Your task to perform on an android device: turn off picture-in-picture Image 0: 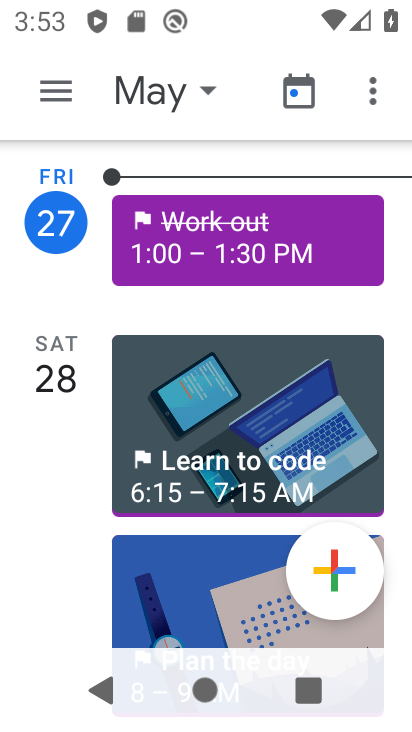
Step 0: press back button
Your task to perform on an android device: turn off picture-in-picture Image 1: 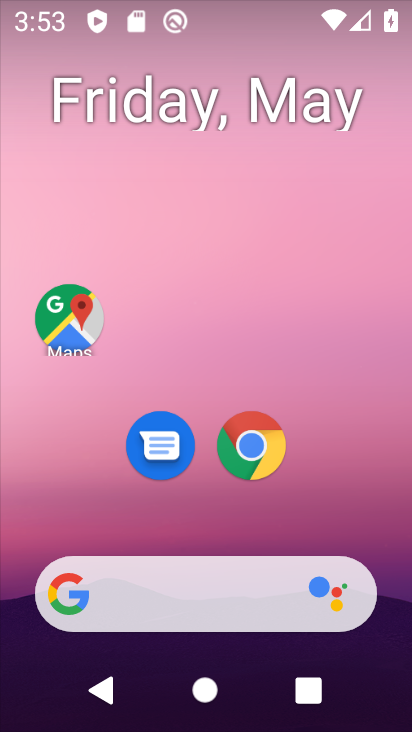
Step 1: drag from (204, 506) to (253, 52)
Your task to perform on an android device: turn off picture-in-picture Image 2: 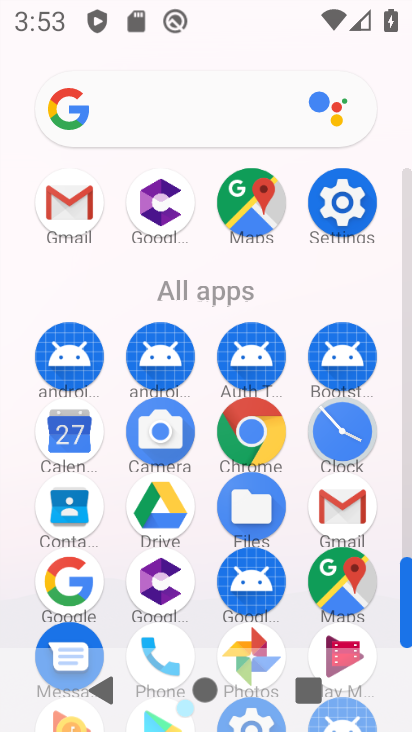
Step 2: click (351, 202)
Your task to perform on an android device: turn off picture-in-picture Image 3: 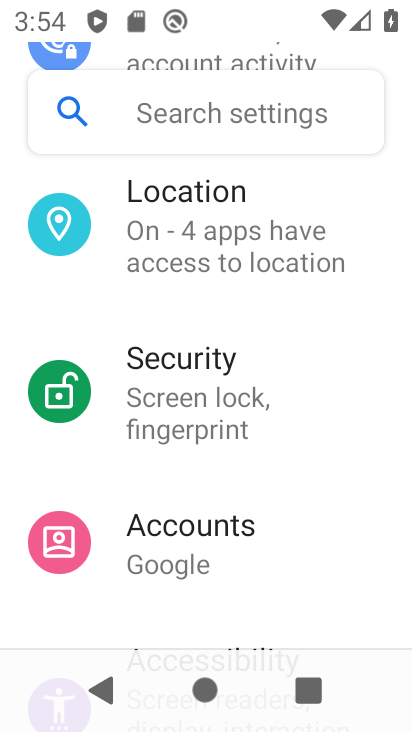
Step 3: drag from (202, 145) to (238, 590)
Your task to perform on an android device: turn off picture-in-picture Image 4: 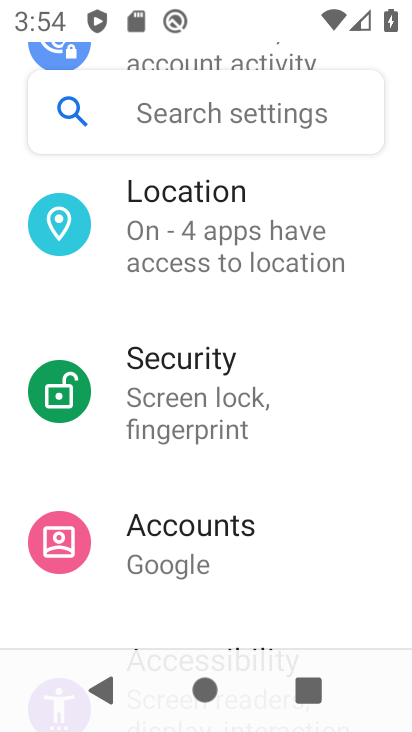
Step 4: drag from (180, 522) to (261, 73)
Your task to perform on an android device: turn off picture-in-picture Image 5: 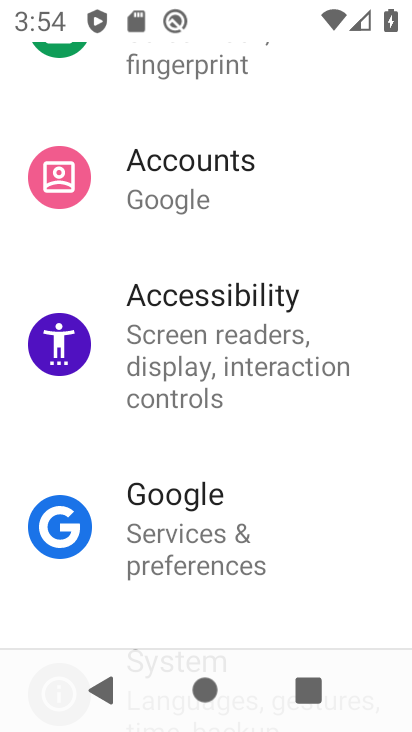
Step 5: drag from (234, 407) to (197, 655)
Your task to perform on an android device: turn off picture-in-picture Image 6: 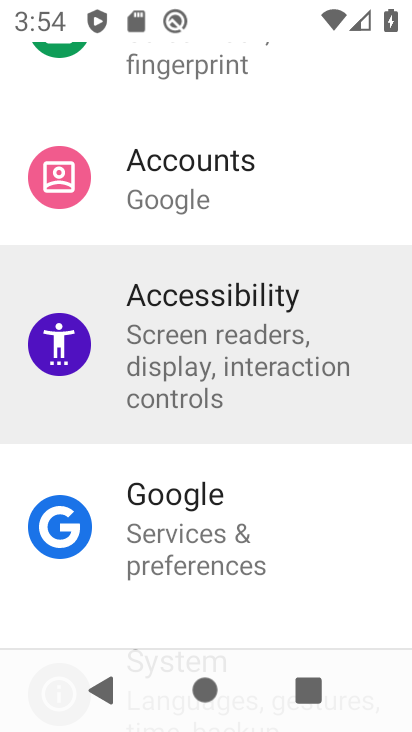
Step 6: drag from (214, 323) to (170, 620)
Your task to perform on an android device: turn off picture-in-picture Image 7: 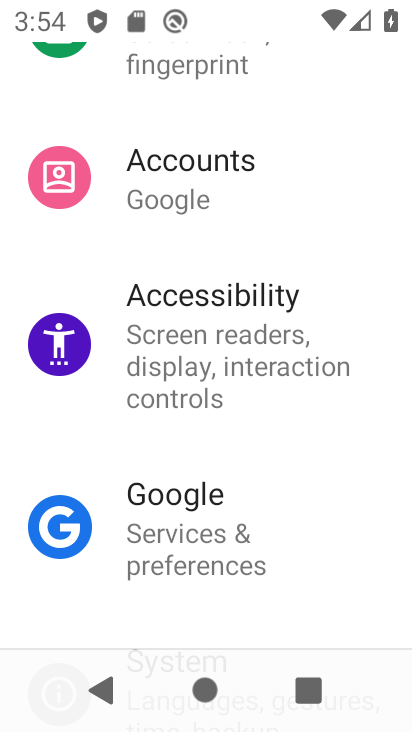
Step 7: click (159, 553)
Your task to perform on an android device: turn off picture-in-picture Image 8: 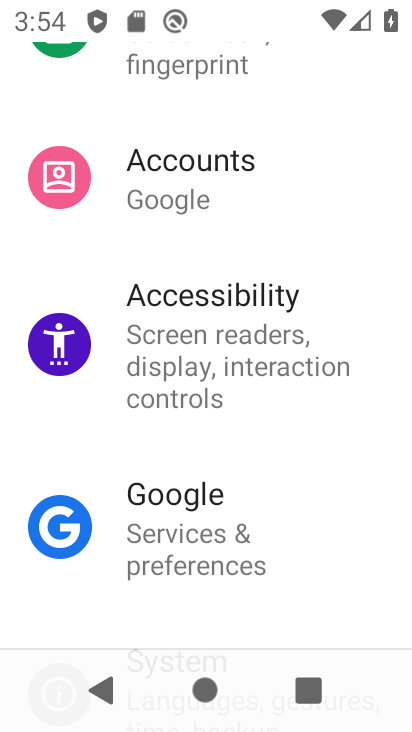
Step 8: drag from (243, 188) to (186, 594)
Your task to perform on an android device: turn off picture-in-picture Image 9: 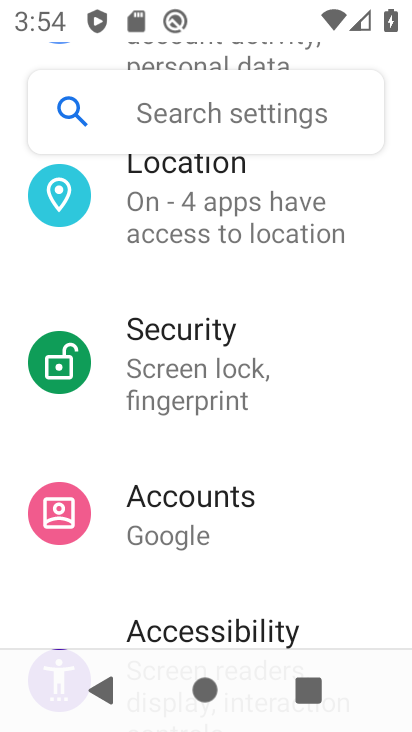
Step 9: drag from (220, 280) to (184, 668)
Your task to perform on an android device: turn off picture-in-picture Image 10: 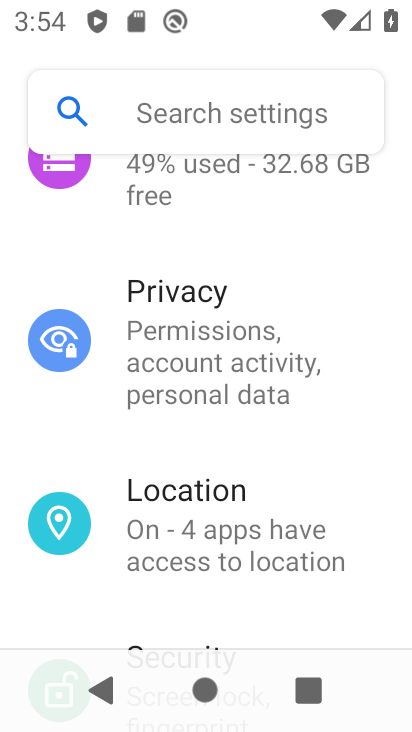
Step 10: drag from (235, 248) to (211, 602)
Your task to perform on an android device: turn off picture-in-picture Image 11: 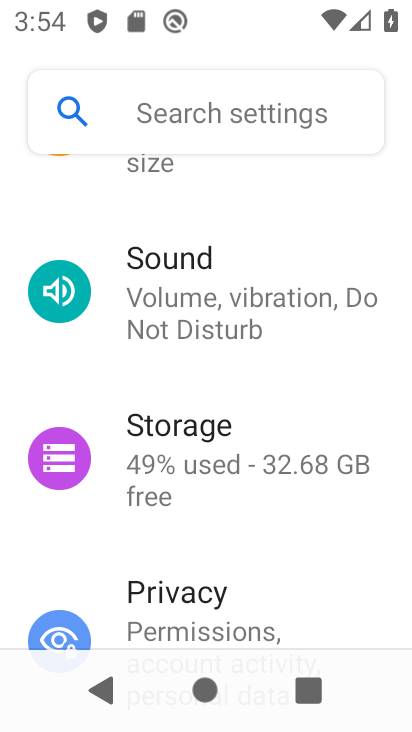
Step 11: drag from (219, 207) to (172, 672)
Your task to perform on an android device: turn off picture-in-picture Image 12: 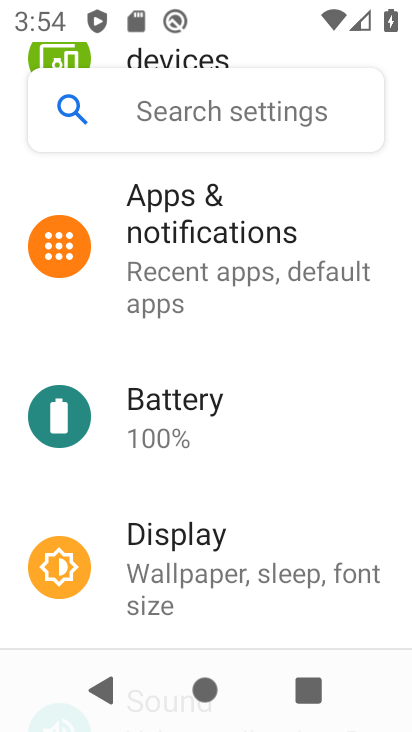
Step 12: click (207, 217)
Your task to perform on an android device: turn off picture-in-picture Image 13: 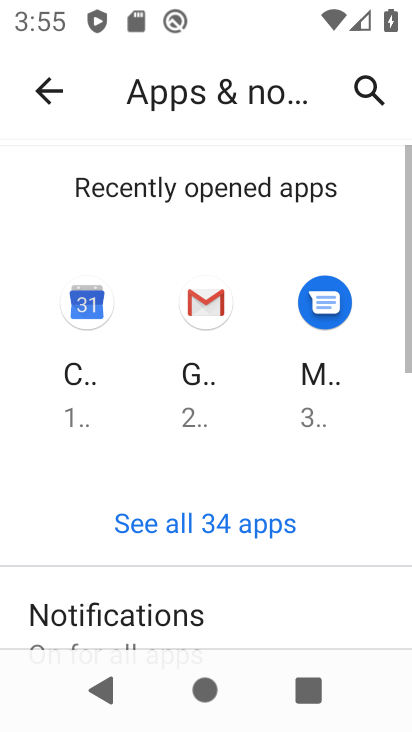
Step 13: drag from (185, 618) to (256, 47)
Your task to perform on an android device: turn off picture-in-picture Image 14: 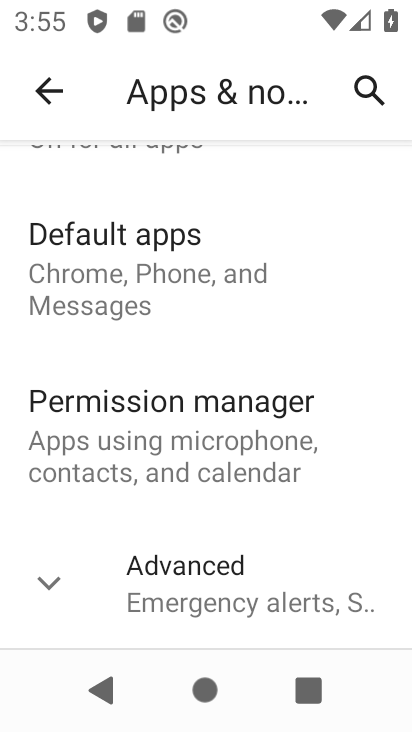
Step 14: click (171, 565)
Your task to perform on an android device: turn off picture-in-picture Image 15: 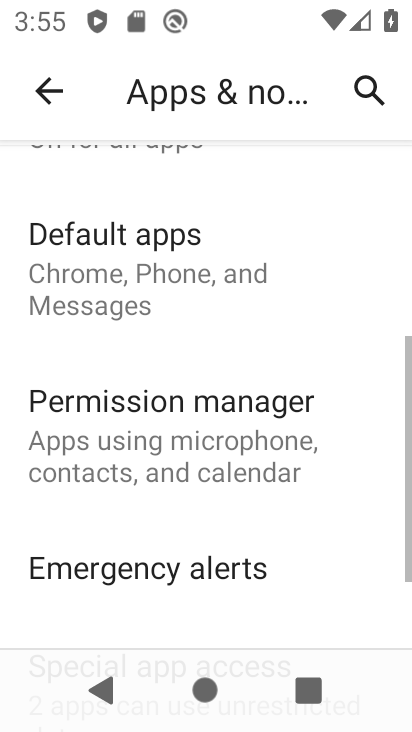
Step 15: drag from (160, 610) to (248, 85)
Your task to perform on an android device: turn off picture-in-picture Image 16: 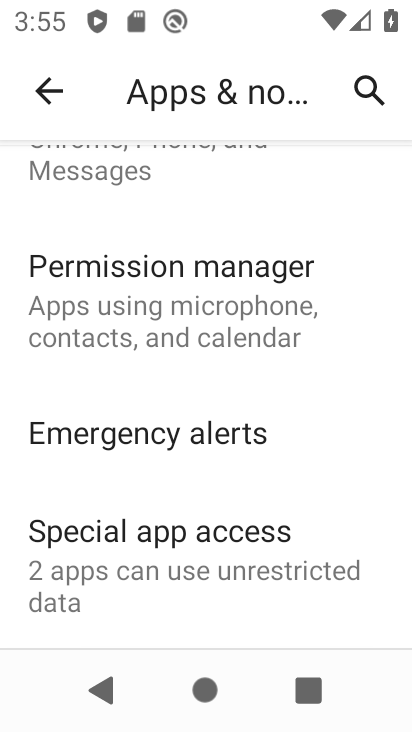
Step 16: click (142, 577)
Your task to perform on an android device: turn off picture-in-picture Image 17: 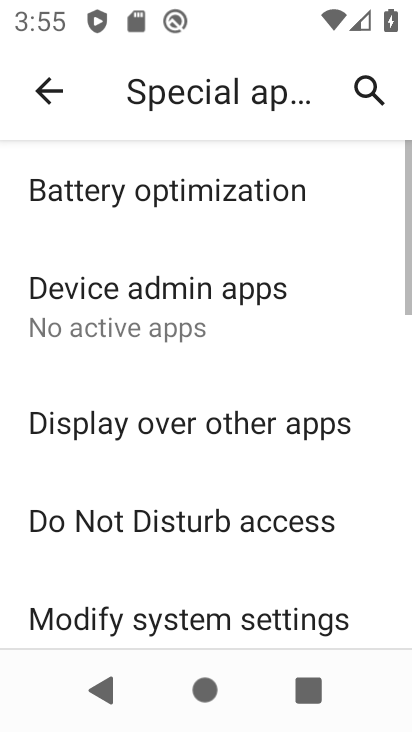
Step 17: drag from (141, 576) to (247, 78)
Your task to perform on an android device: turn off picture-in-picture Image 18: 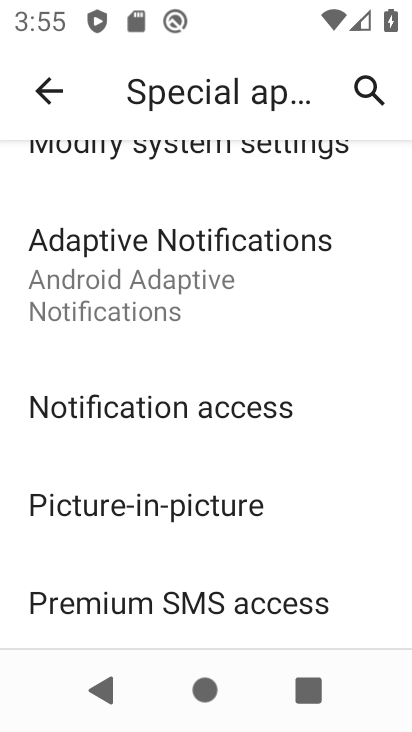
Step 18: click (176, 493)
Your task to perform on an android device: turn off picture-in-picture Image 19: 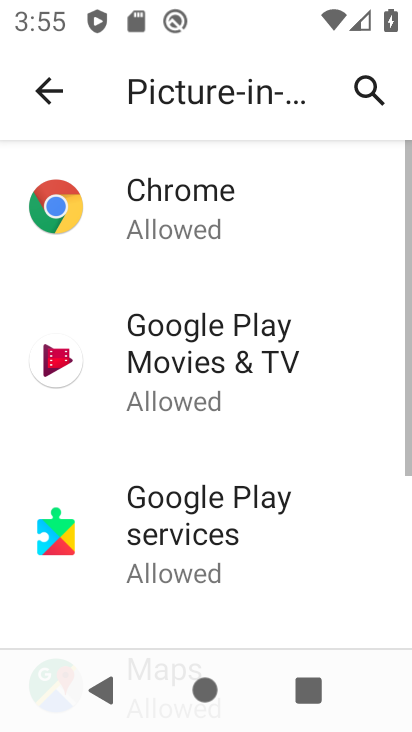
Step 19: click (220, 164)
Your task to perform on an android device: turn off picture-in-picture Image 20: 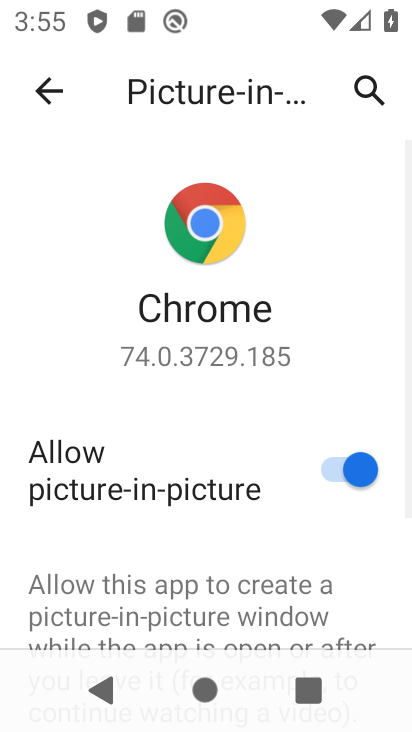
Step 20: click (358, 478)
Your task to perform on an android device: turn off picture-in-picture Image 21: 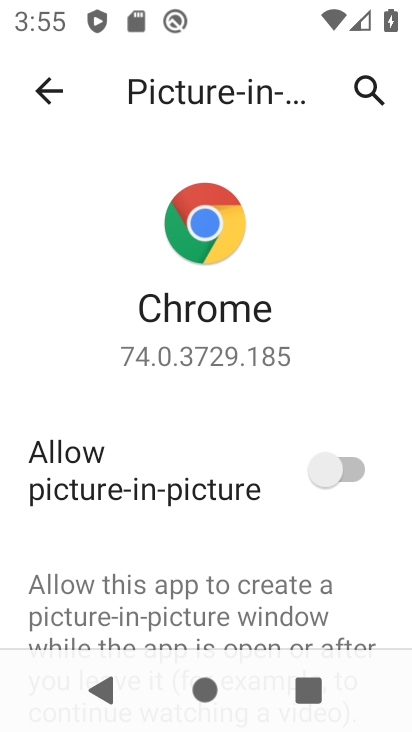
Step 21: task complete